Your task to perform on an android device: remove spam from my inbox in the gmail app Image 0: 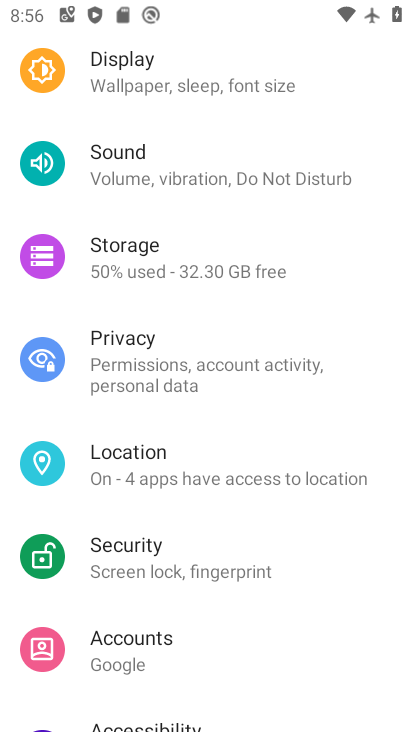
Step 0: press home button
Your task to perform on an android device: remove spam from my inbox in the gmail app Image 1: 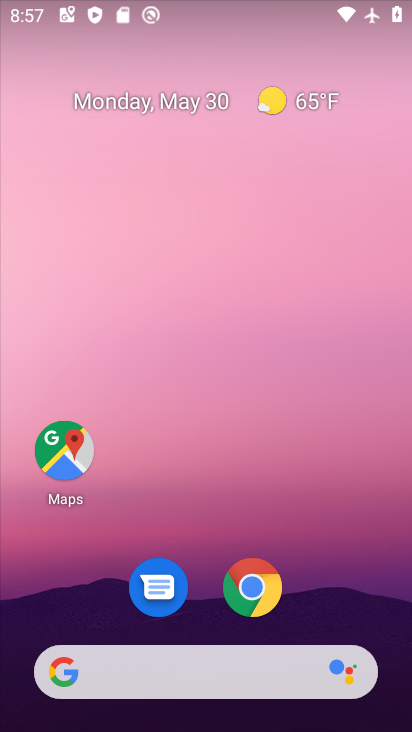
Step 1: drag from (209, 655) to (327, 160)
Your task to perform on an android device: remove spam from my inbox in the gmail app Image 2: 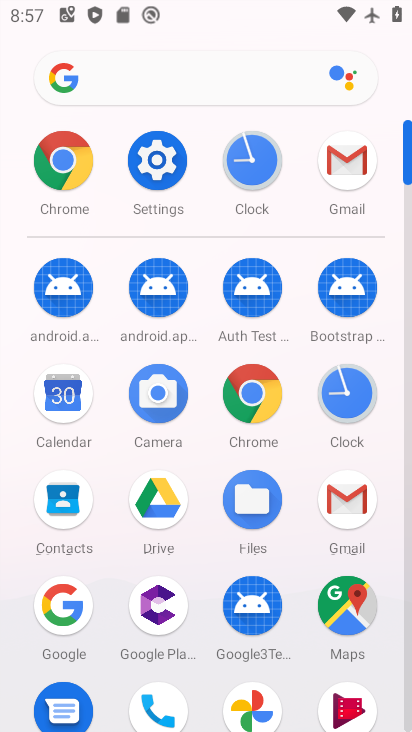
Step 2: click (346, 172)
Your task to perform on an android device: remove spam from my inbox in the gmail app Image 3: 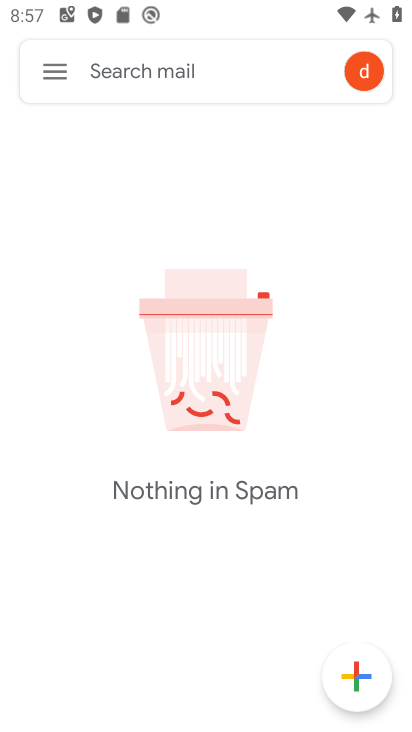
Step 3: task complete